Your task to perform on an android device: What is the recent news? Image 0: 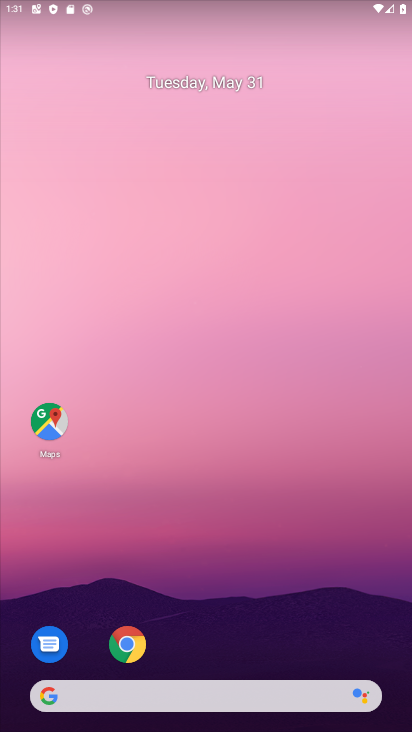
Step 0: drag from (392, 704) to (369, 114)
Your task to perform on an android device: What is the recent news? Image 1: 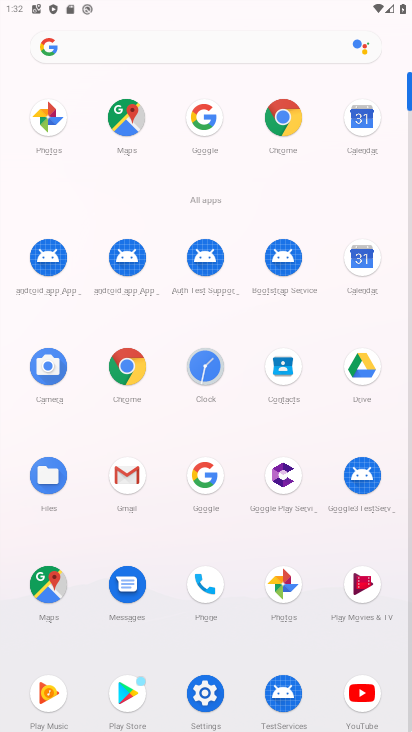
Step 1: task complete